Your task to perform on an android device: Open settings on Google Maps Image 0: 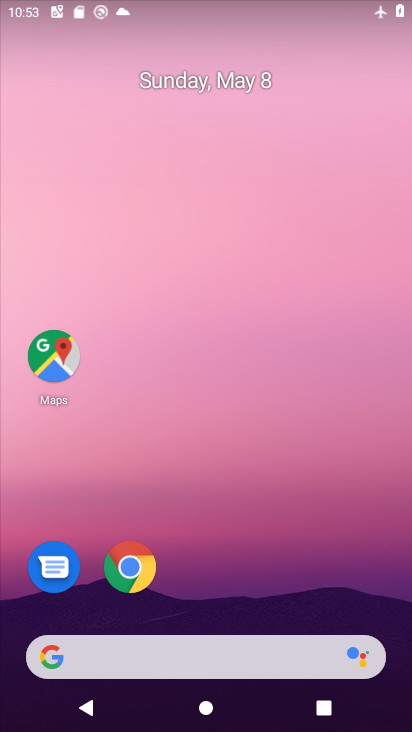
Step 0: drag from (232, 602) to (209, 59)
Your task to perform on an android device: Open settings on Google Maps Image 1: 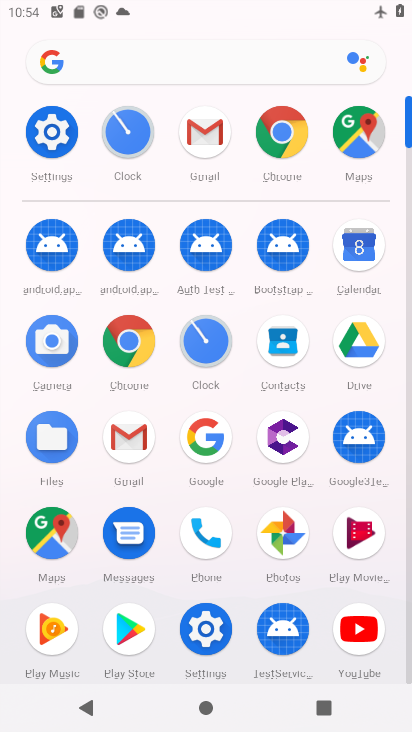
Step 1: click (357, 145)
Your task to perform on an android device: Open settings on Google Maps Image 2: 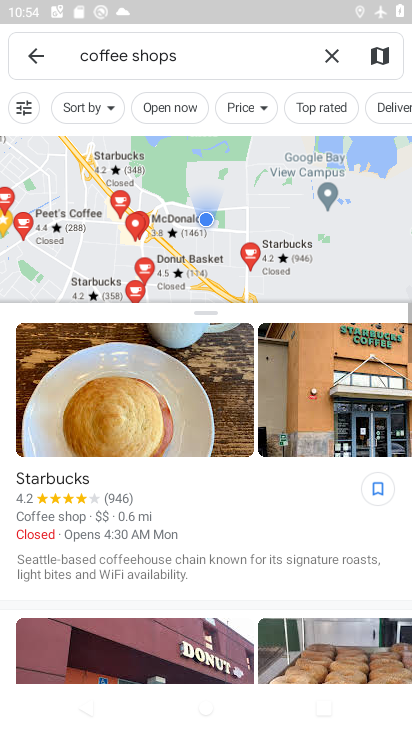
Step 2: click (38, 67)
Your task to perform on an android device: Open settings on Google Maps Image 3: 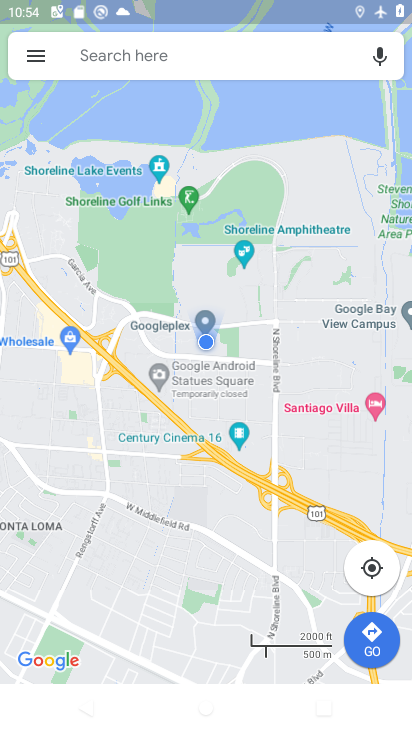
Step 3: click (38, 67)
Your task to perform on an android device: Open settings on Google Maps Image 4: 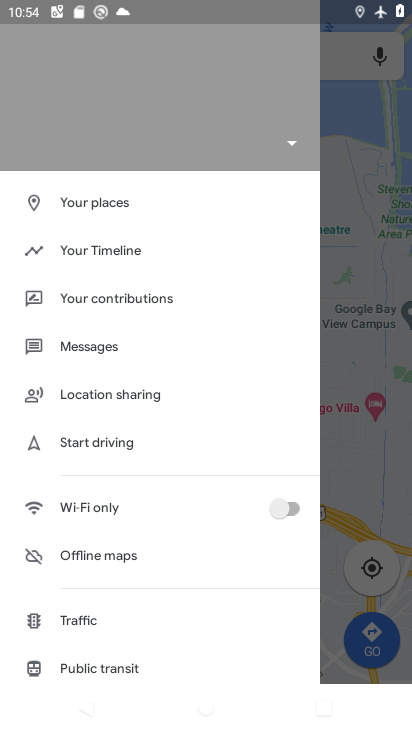
Step 4: drag from (146, 538) to (152, 176)
Your task to perform on an android device: Open settings on Google Maps Image 5: 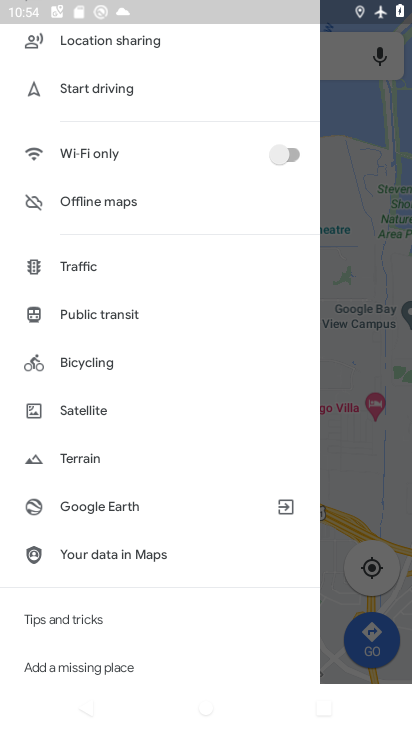
Step 5: drag from (141, 485) to (167, 119)
Your task to perform on an android device: Open settings on Google Maps Image 6: 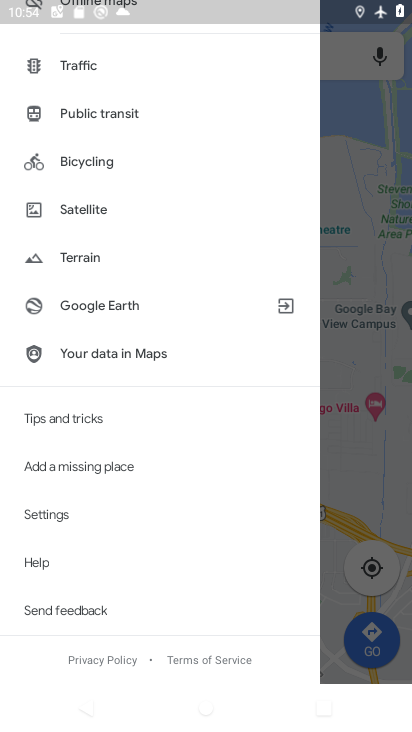
Step 6: click (46, 526)
Your task to perform on an android device: Open settings on Google Maps Image 7: 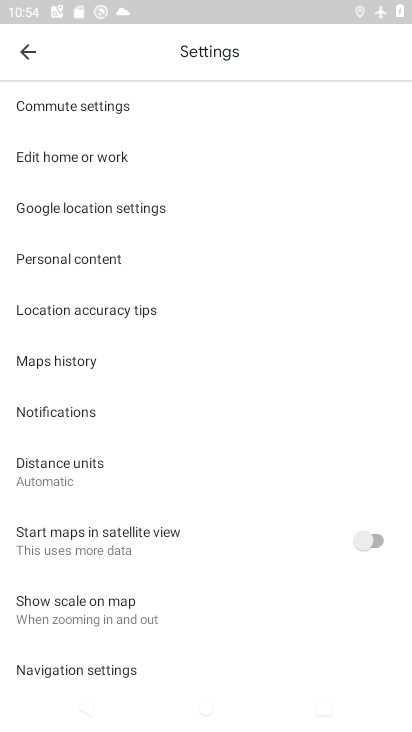
Step 7: task complete